Your task to perform on an android device: open wifi settings Image 0: 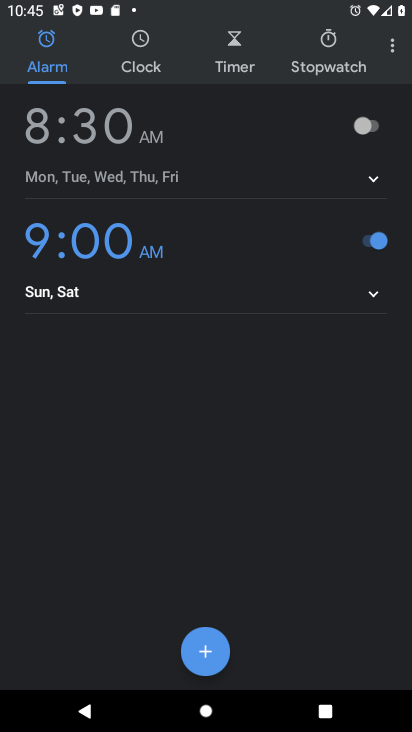
Step 0: drag from (202, 5) to (267, 578)
Your task to perform on an android device: open wifi settings Image 1: 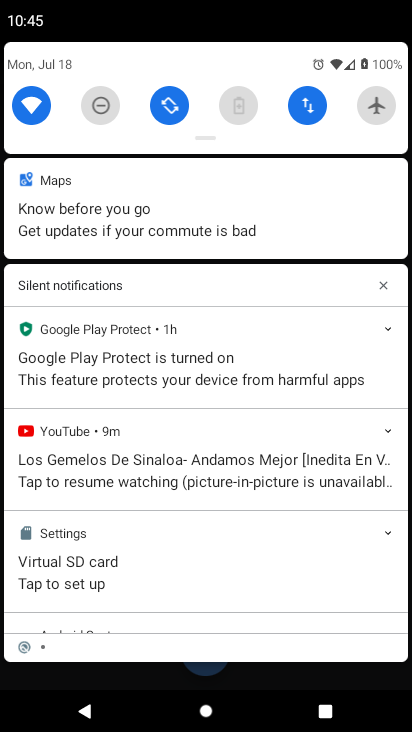
Step 1: click (35, 94)
Your task to perform on an android device: open wifi settings Image 2: 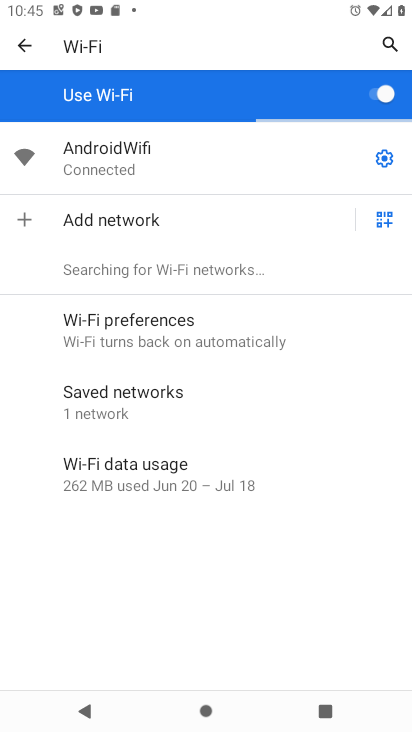
Step 2: task complete